Your task to perform on an android device: Open Yahoo.com Image 0: 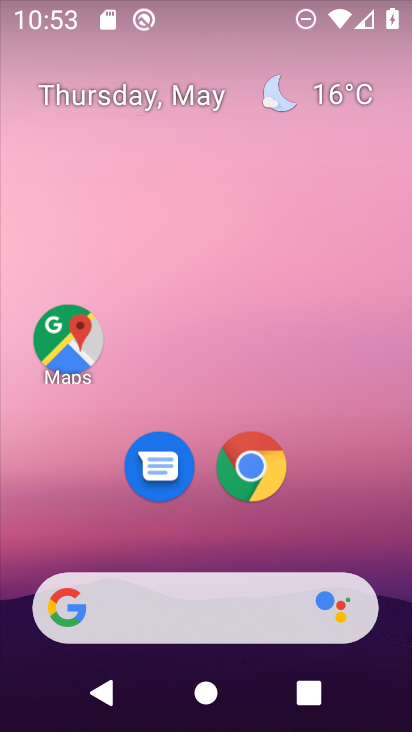
Step 0: click (252, 452)
Your task to perform on an android device: Open Yahoo.com Image 1: 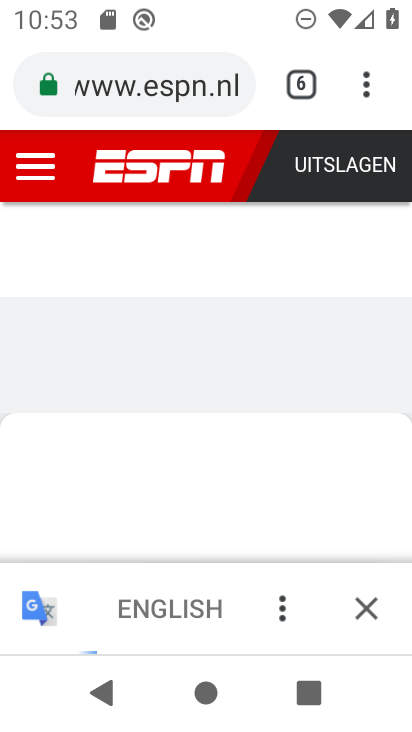
Step 1: click (363, 76)
Your task to perform on an android device: Open Yahoo.com Image 2: 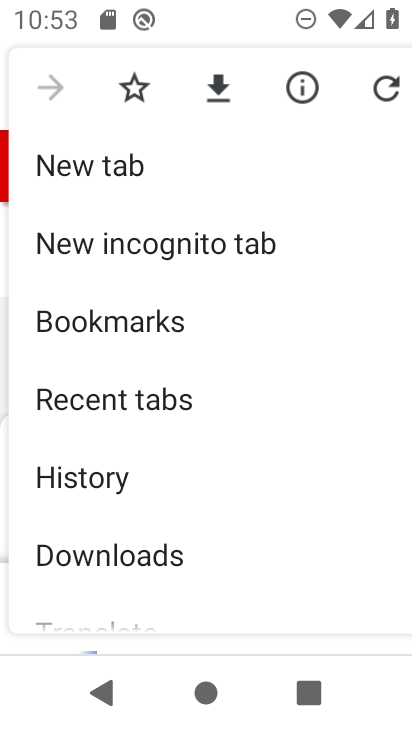
Step 2: click (166, 153)
Your task to perform on an android device: Open Yahoo.com Image 3: 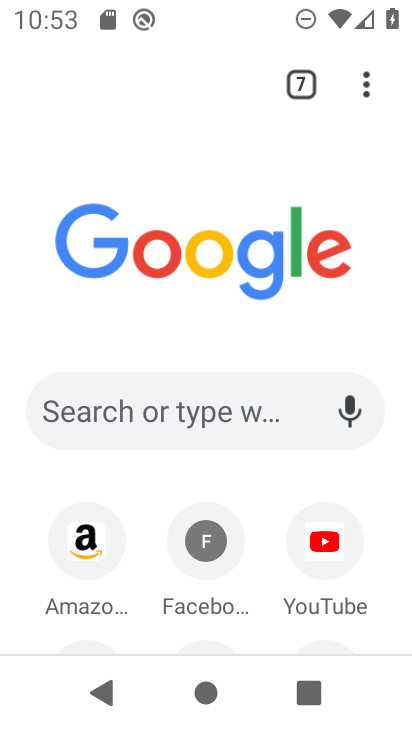
Step 3: drag from (274, 576) to (250, 174)
Your task to perform on an android device: Open Yahoo.com Image 4: 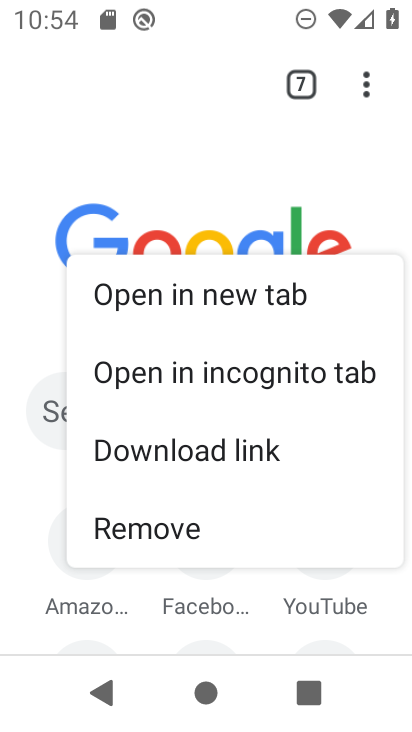
Step 4: click (39, 516)
Your task to perform on an android device: Open Yahoo.com Image 5: 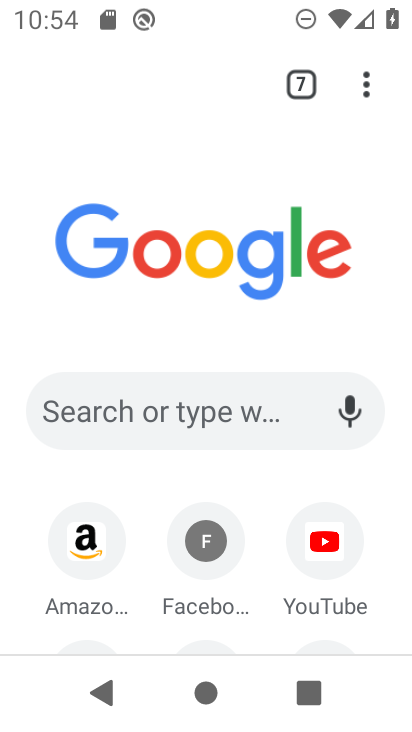
Step 5: drag from (395, 601) to (368, 188)
Your task to perform on an android device: Open Yahoo.com Image 6: 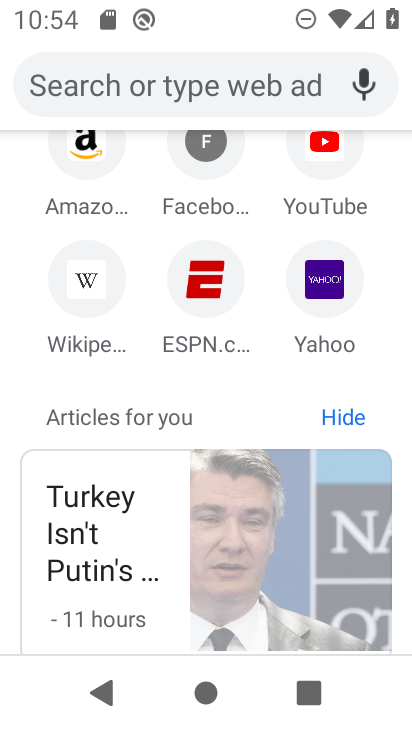
Step 6: drag from (60, 602) to (116, 231)
Your task to perform on an android device: Open Yahoo.com Image 7: 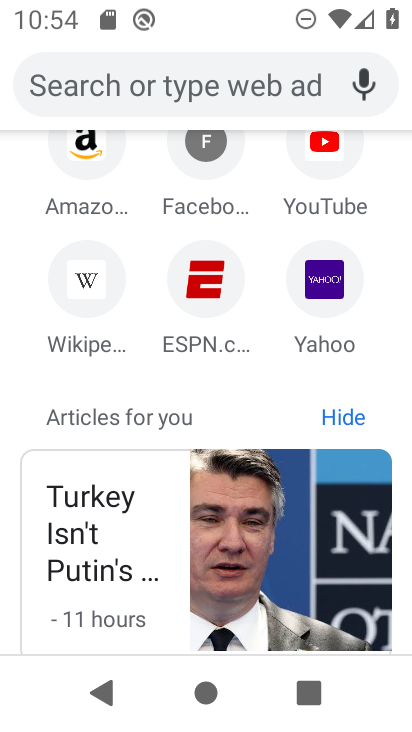
Step 7: click (322, 277)
Your task to perform on an android device: Open Yahoo.com Image 8: 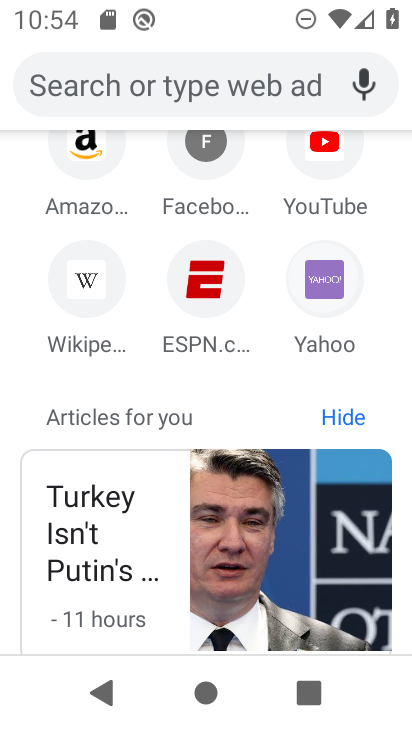
Step 8: click (324, 276)
Your task to perform on an android device: Open Yahoo.com Image 9: 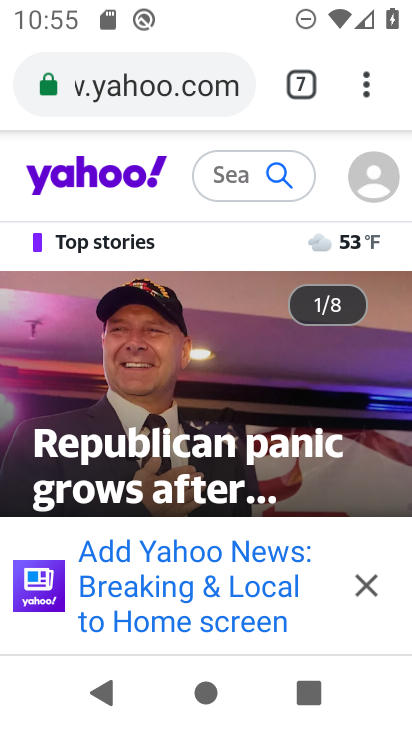
Step 9: task complete